Your task to perform on an android device: Open sound settings Image 0: 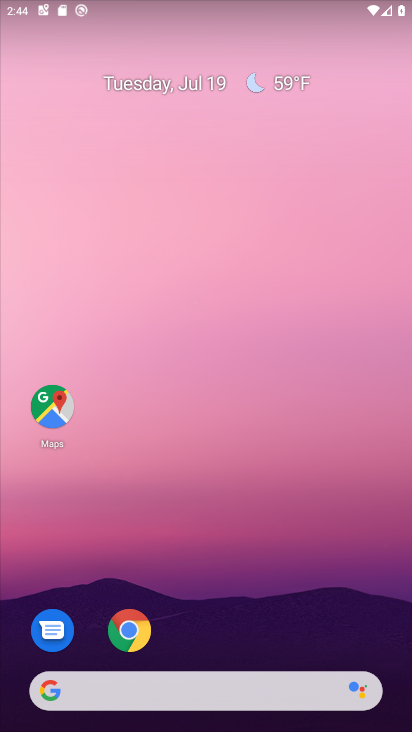
Step 0: drag from (255, 582) to (219, 125)
Your task to perform on an android device: Open sound settings Image 1: 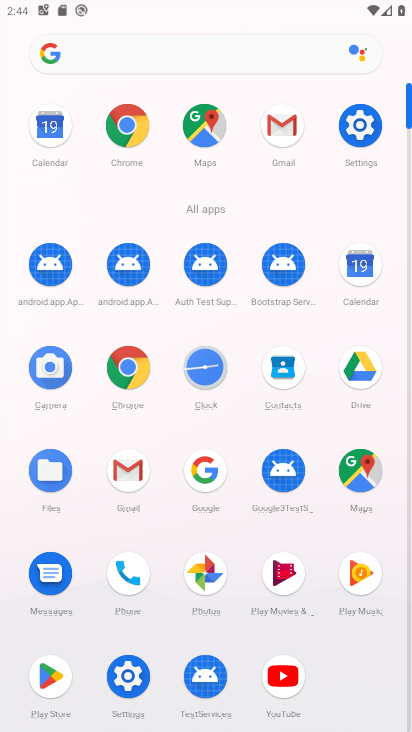
Step 1: click (356, 121)
Your task to perform on an android device: Open sound settings Image 2: 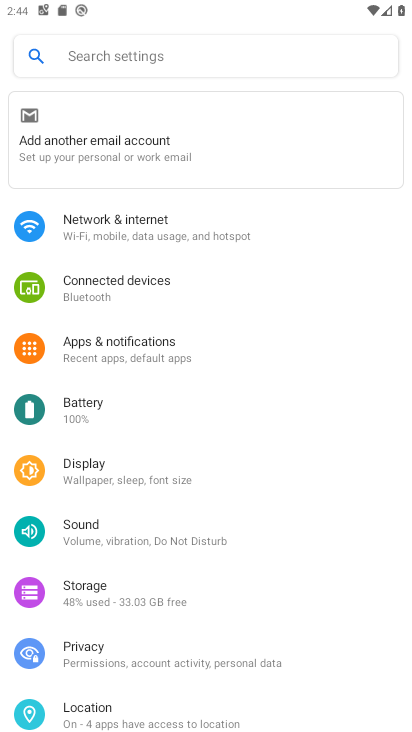
Step 2: click (76, 523)
Your task to perform on an android device: Open sound settings Image 3: 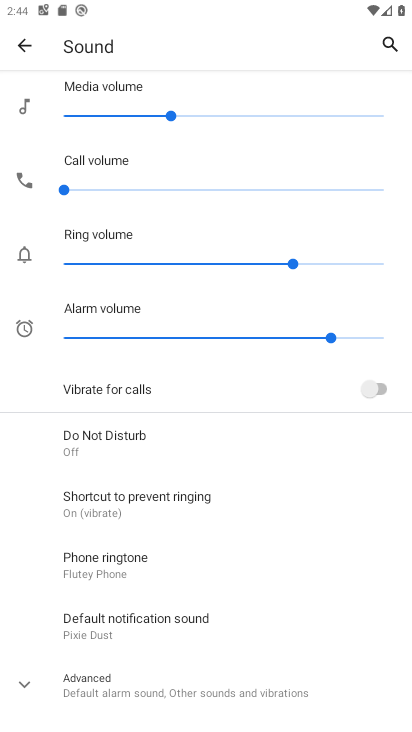
Step 3: task complete